Your task to perform on an android device: open chrome and create a bookmark for the current page Image 0: 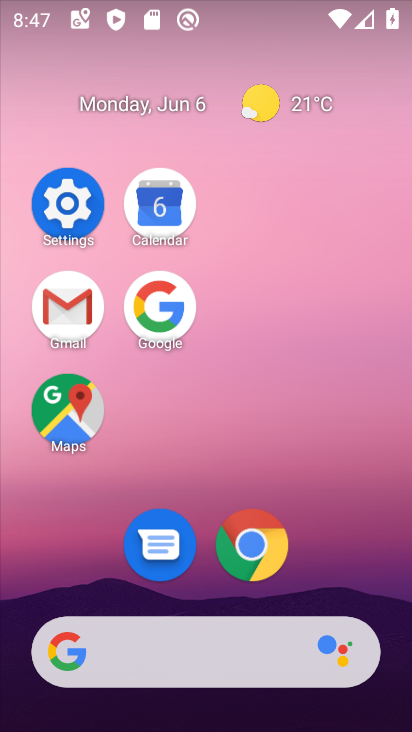
Step 0: click (284, 537)
Your task to perform on an android device: open chrome and create a bookmark for the current page Image 1: 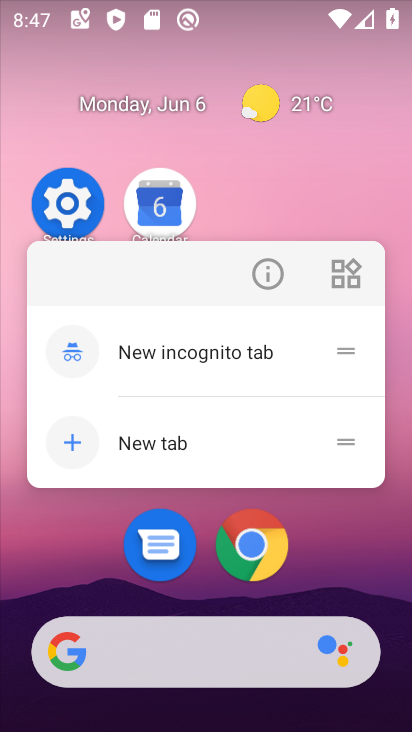
Step 1: click (252, 557)
Your task to perform on an android device: open chrome and create a bookmark for the current page Image 2: 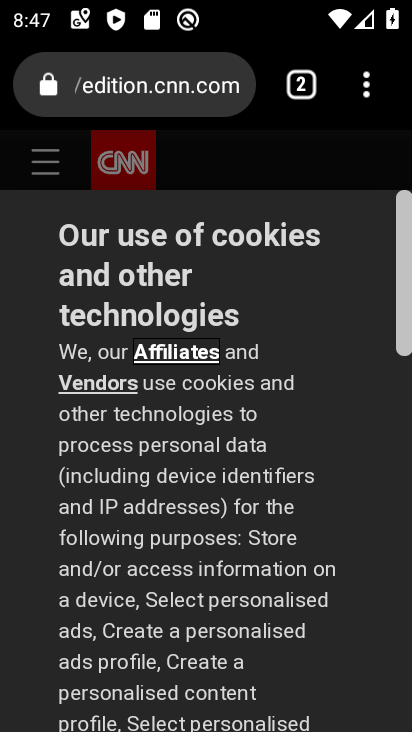
Step 2: click (309, 81)
Your task to perform on an android device: open chrome and create a bookmark for the current page Image 3: 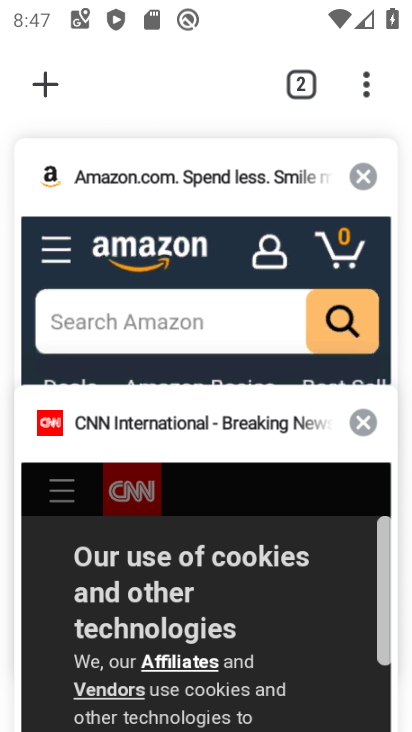
Step 3: click (49, 77)
Your task to perform on an android device: open chrome and create a bookmark for the current page Image 4: 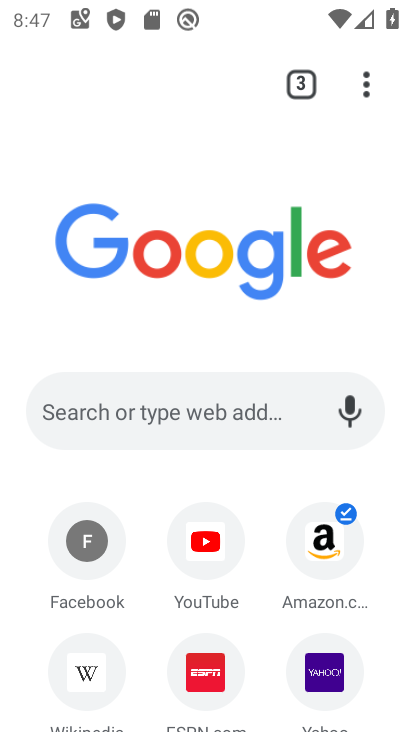
Step 4: click (378, 77)
Your task to perform on an android device: open chrome and create a bookmark for the current page Image 5: 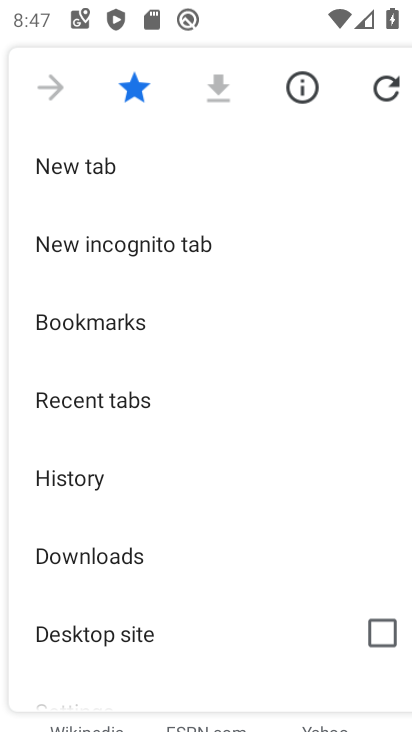
Step 5: task complete